Your task to perform on an android device: empty trash in the gmail app Image 0: 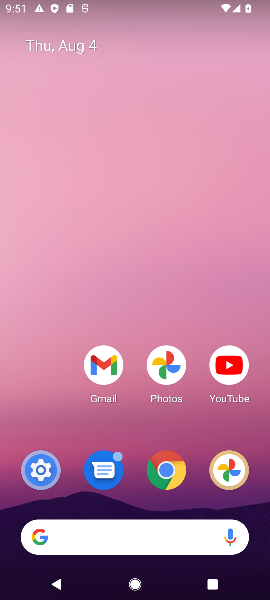
Step 0: click (100, 355)
Your task to perform on an android device: empty trash in the gmail app Image 1: 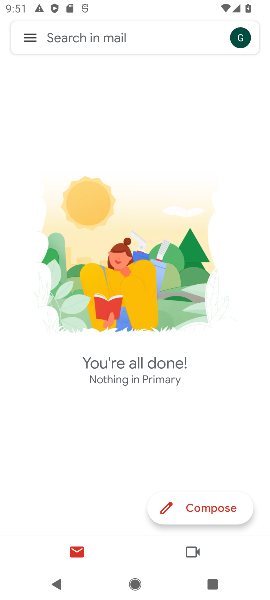
Step 1: click (32, 42)
Your task to perform on an android device: empty trash in the gmail app Image 2: 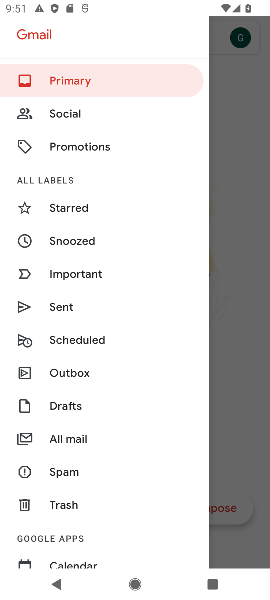
Step 2: click (79, 508)
Your task to perform on an android device: empty trash in the gmail app Image 3: 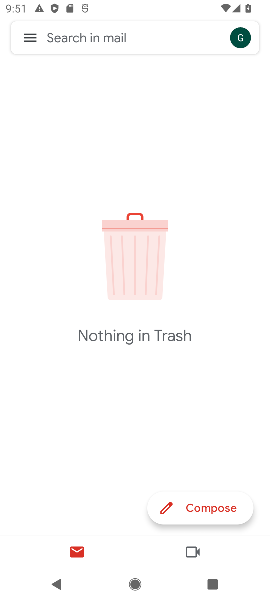
Step 3: task complete